Your task to perform on an android device: toggle notifications settings in the gmail app Image 0: 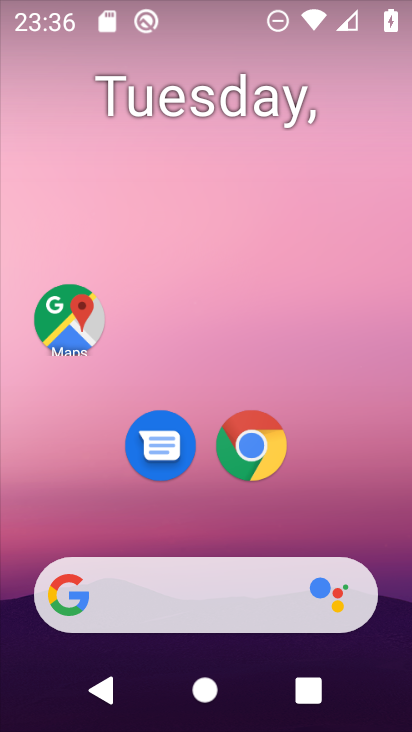
Step 0: drag from (304, 523) to (319, 0)
Your task to perform on an android device: toggle notifications settings in the gmail app Image 1: 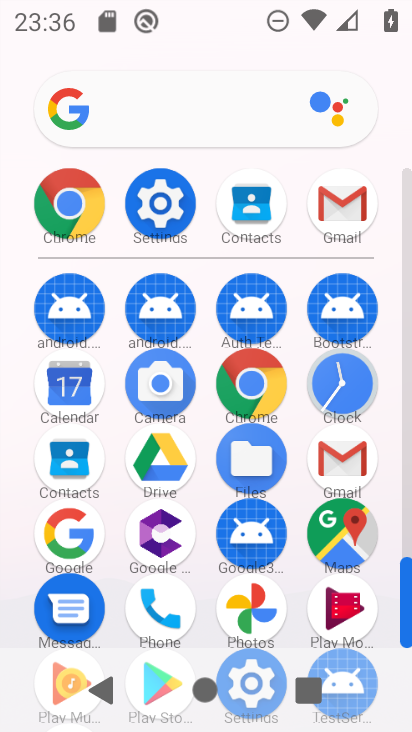
Step 1: click (336, 212)
Your task to perform on an android device: toggle notifications settings in the gmail app Image 2: 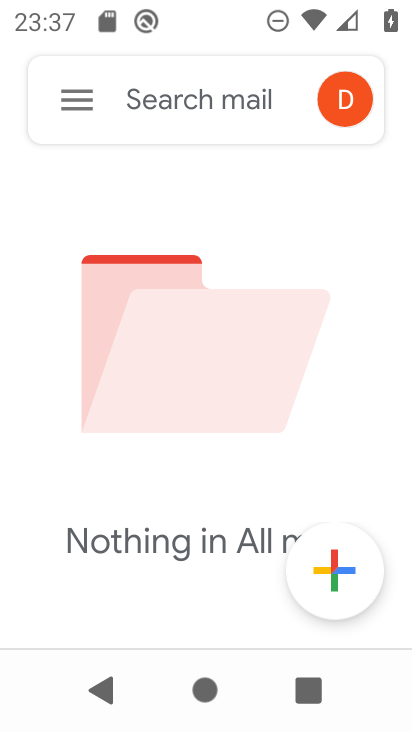
Step 2: click (86, 99)
Your task to perform on an android device: toggle notifications settings in the gmail app Image 3: 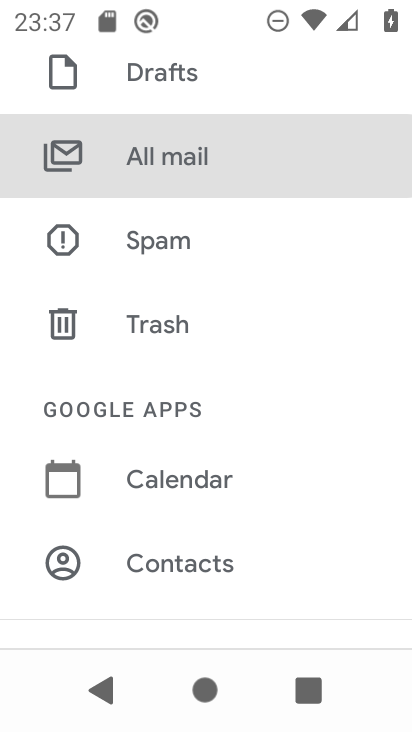
Step 3: drag from (204, 556) to (259, 333)
Your task to perform on an android device: toggle notifications settings in the gmail app Image 4: 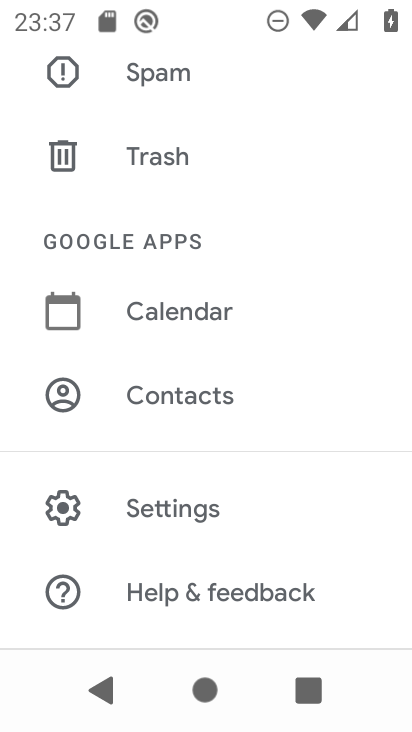
Step 4: click (158, 504)
Your task to perform on an android device: toggle notifications settings in the gmail app Image 5: 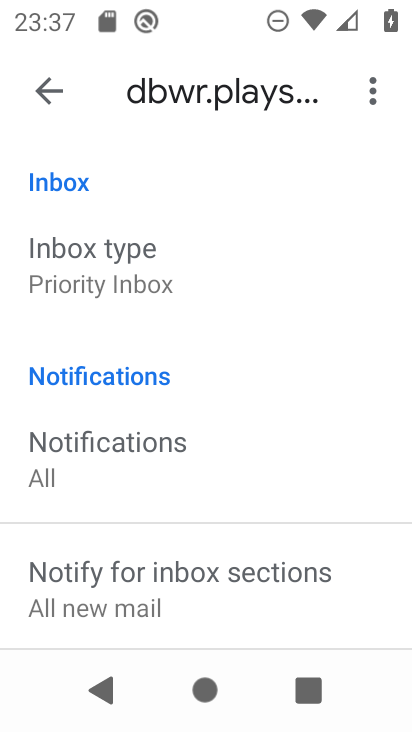
Step 5: drag from (194, 577) to (295, 202)
Your task to perform on an android device: toggle notifications settings in the gmail app Image 6: 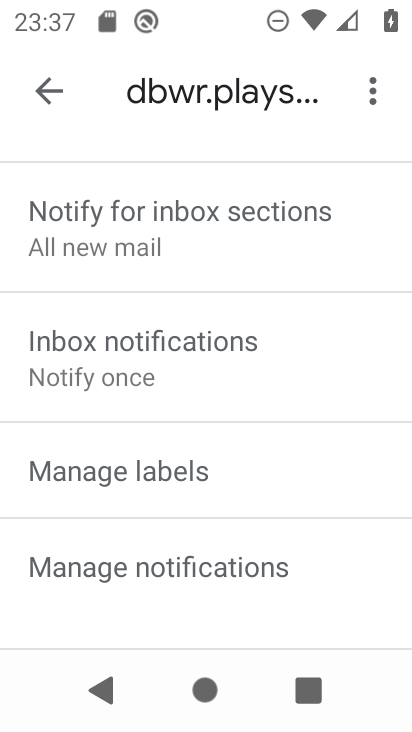
Step 6: click (157, 583)
Your task to perform on an android device: toggle notifications settings in the gmail app Image 7: 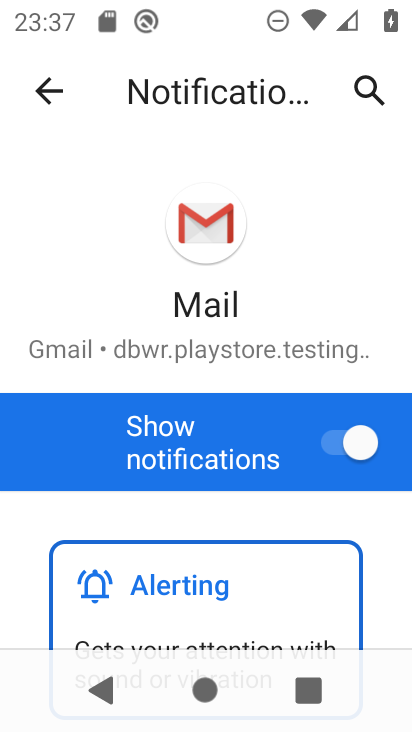
Step 7: click (341, 444)
Your task to perform on an android device: toggle notifications settings in the gmail app Image 8: 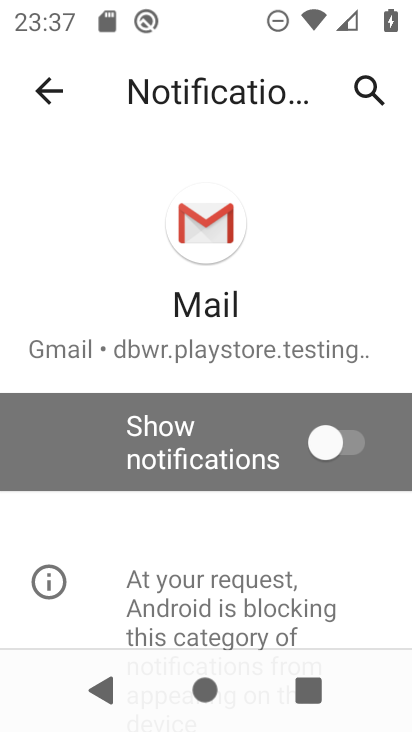
Step 8: task complete